Your task to perform on an android device: Go to Yahoo.com Image 0: 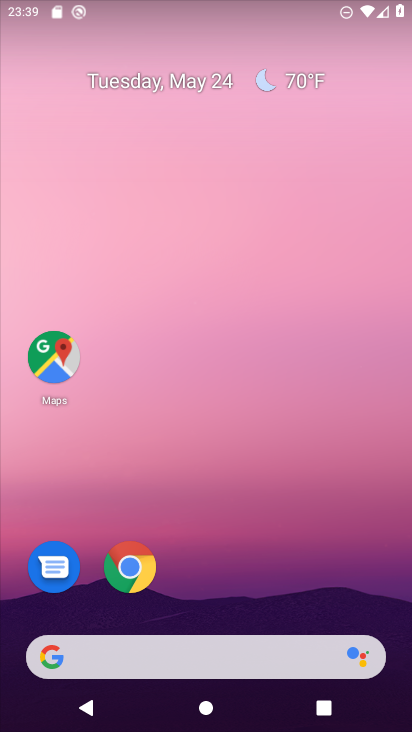
Step 0: click (139, 561)
Your task to perform on an android device: Go to Yahoo.com Image 1: 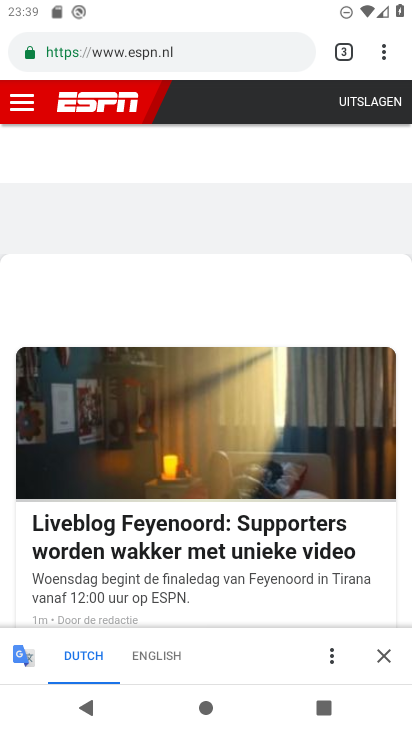
Step 1: click (342, 52)
Your task to perform on an android device: Go to Yahoo.com Image 2: 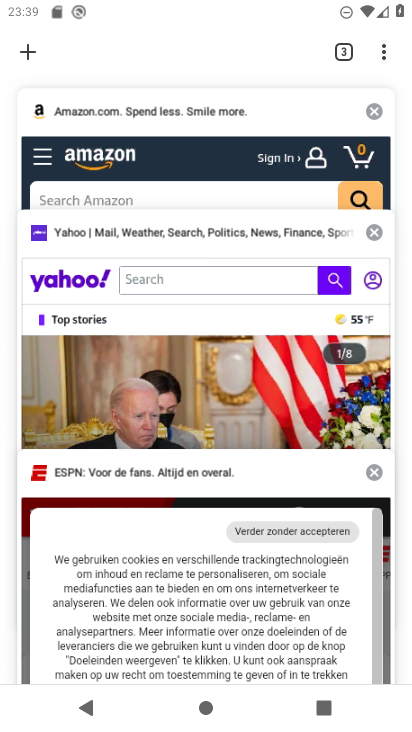
Step 2: click (71, 273)
Your task to perform on an android device: Go to Yahoo.com Image 3: 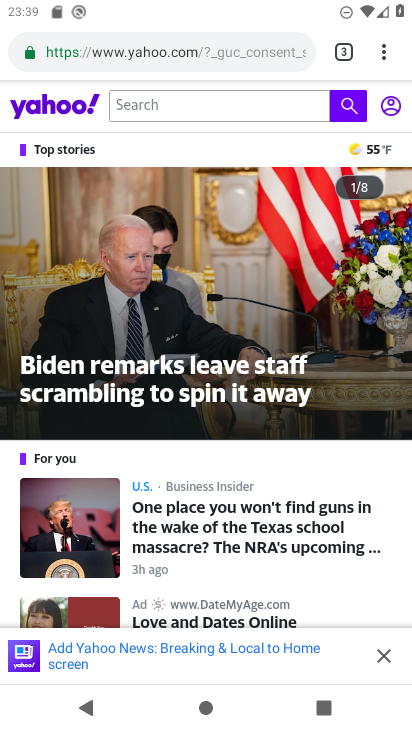
Step 3: task complete